Your task to perform on an android device: change the clock display to show seconds Image 0: 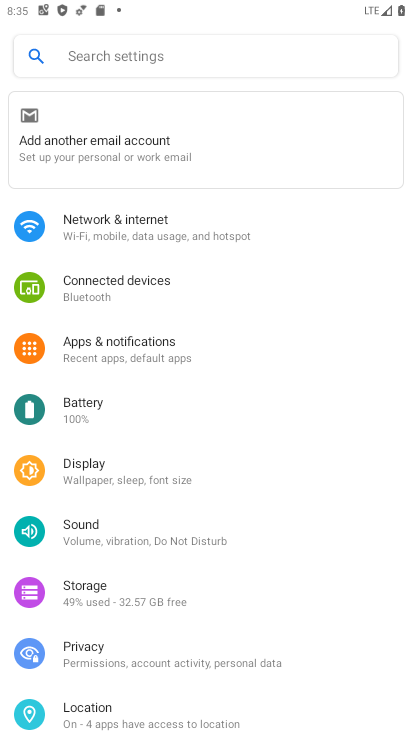
Step 0: press home button
Your task to perform on an android device: change the clock display to show seconds Image 1: 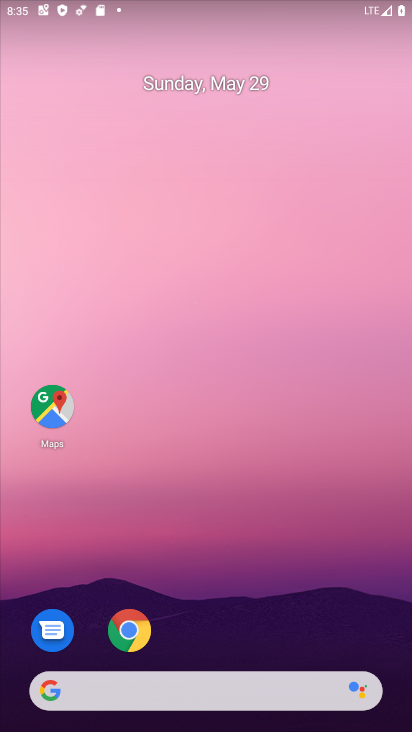
Step 1: drag from (197, 663) to (124, 42)
Your task to perform on an android device: change the clock display to show seconds Image 2: 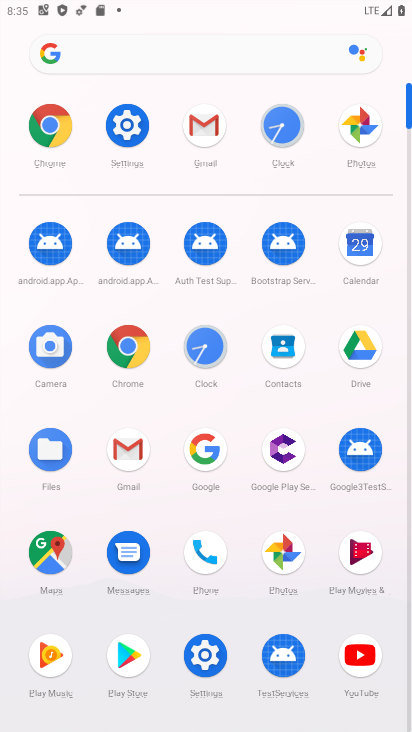
Step 2: click (194, 333)
Your task to perform on an android device: change the clock display to show seconds Image 3: 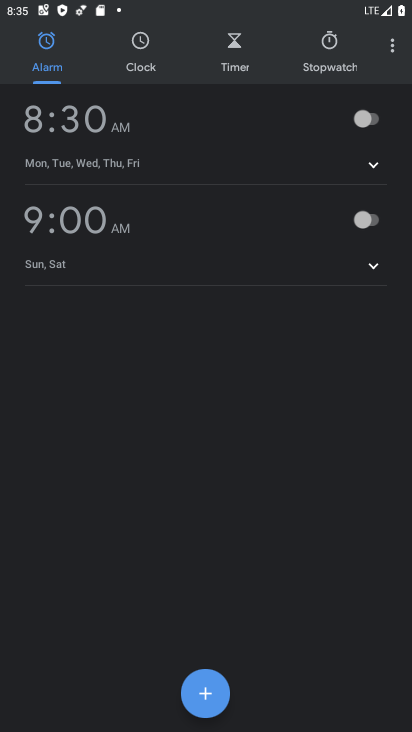
Step 3: click (393, 59)
Your task to perform on an android device: change the clock display to show seconds Image 4: 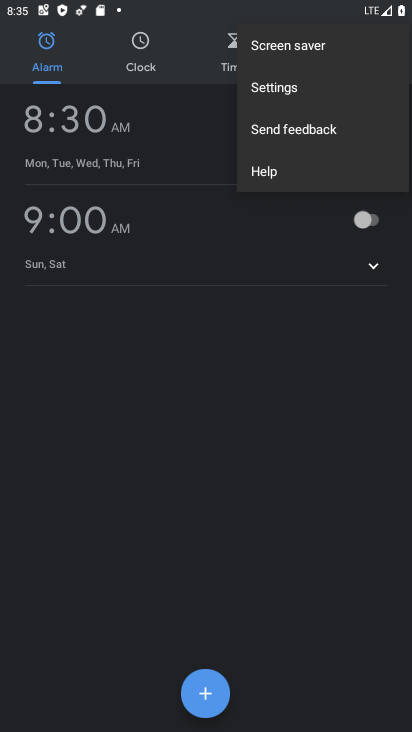
Step 4: click (287, 90)
Your task to perform on an android device: change the clock display to show seconds Image 5: 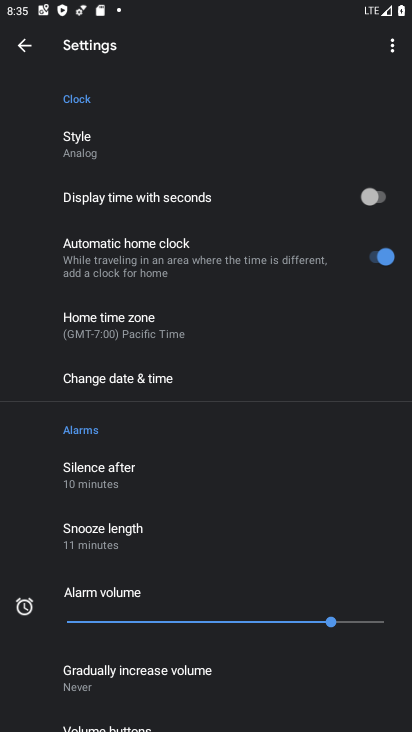
Step 5: drag from (158, 579) to (143, 249)
Your task to perform on an android device: change the clock display to show seconds Image 6: 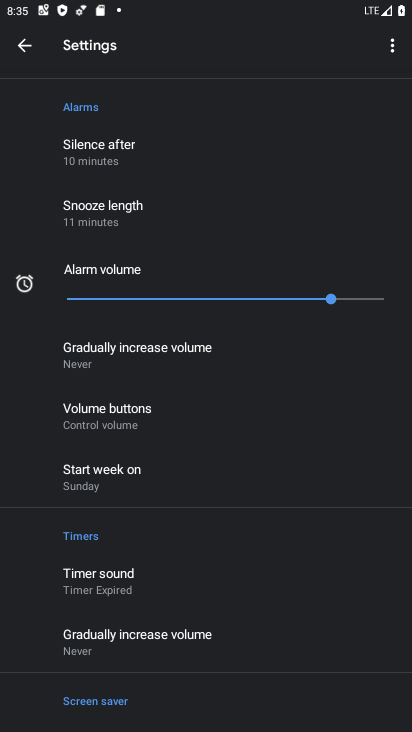
Step 6: drag from (188, 137) to (141, 476)
Your task to perform on an android device: change the clock display to show seconds Image 7: 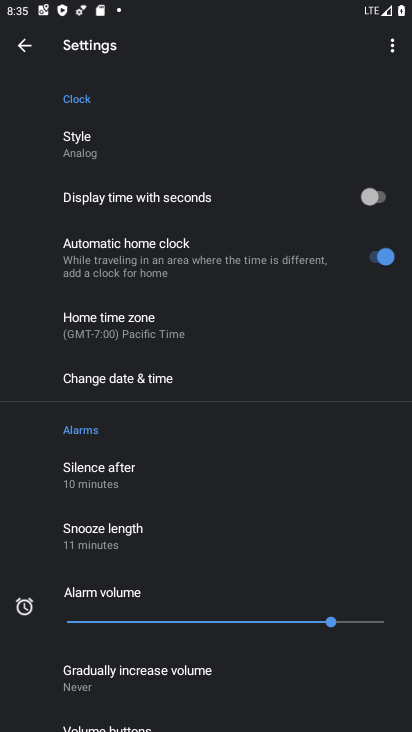
Step 7: click (362, 191)
Your task to perform on an android device: change the clock display to show seconds Image 8: 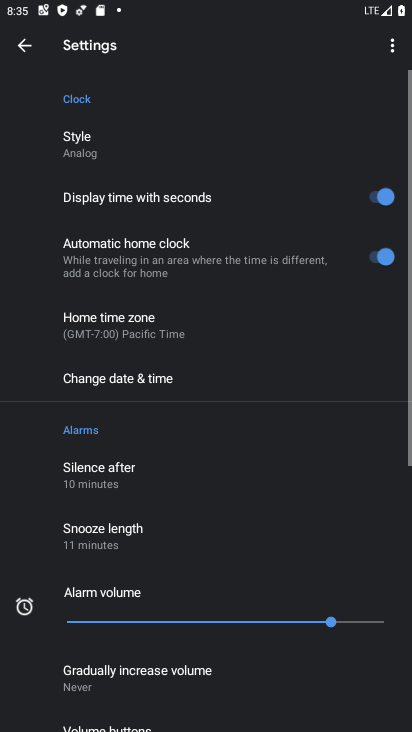
Step 8: task complete